Your task to perform on an android device: turn off location Image 0: 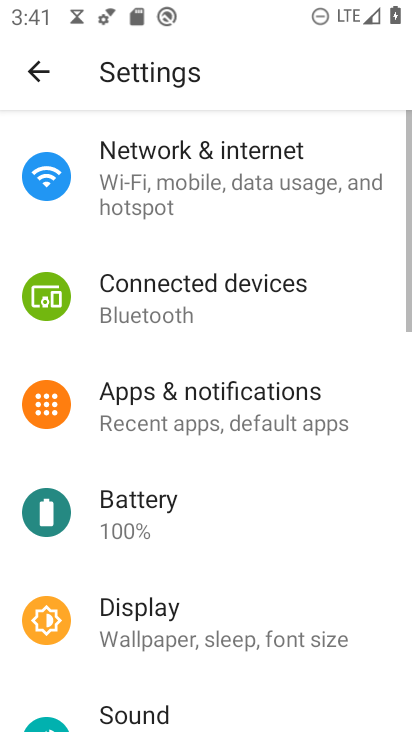
Step 0: press home button
Your task to perform on an android device: turn off location Image 1: 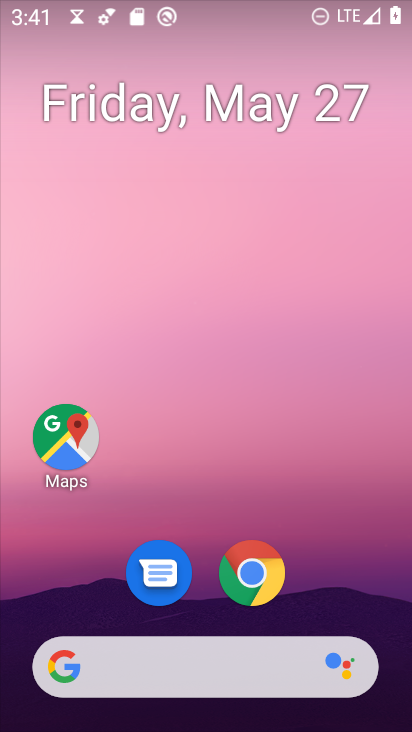
Step 1: drag from (205, 598) to (193, 0)
Your task to perform on an android device: turn off location Image 2: 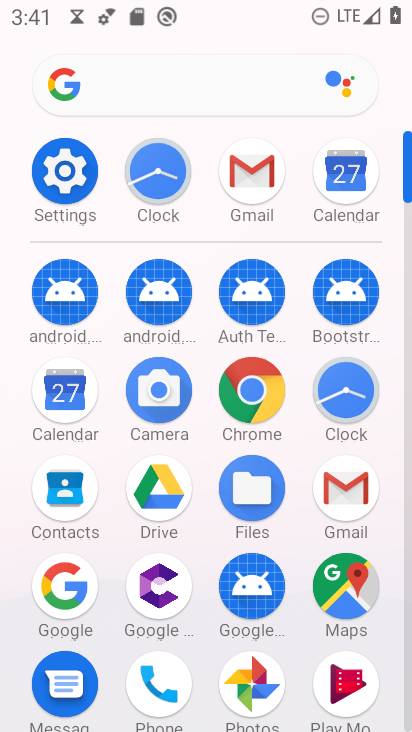
Step 2: click (68, 170)
Your task to perform on an android device: turn off location Image 3: 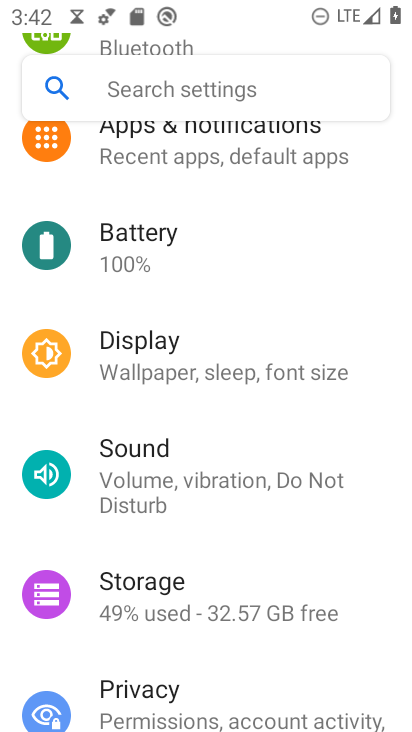
Step 3: drag from (158, 667) to (223, 273)
Your task to perform on an android device: turn off location Image 4: 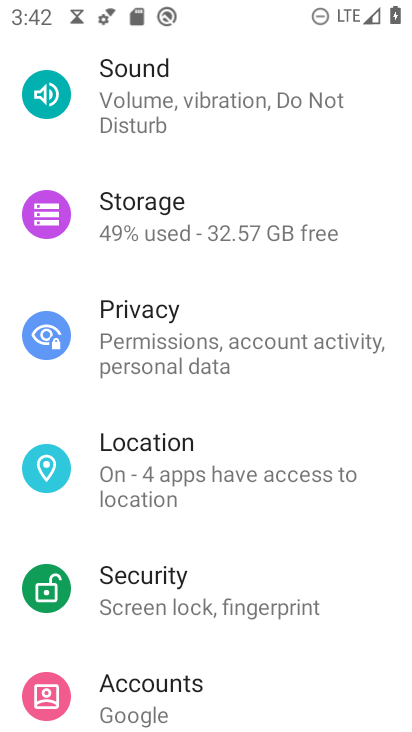
Step 4: click (198, 473)
Your task to perform on an android device: turn off location Image 5: 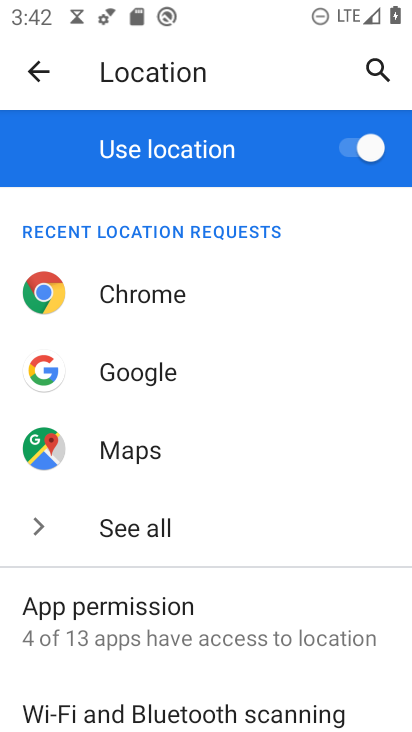
Step 5: click (352, 145)
Your task to perform on an android device: turn off location Image 6: 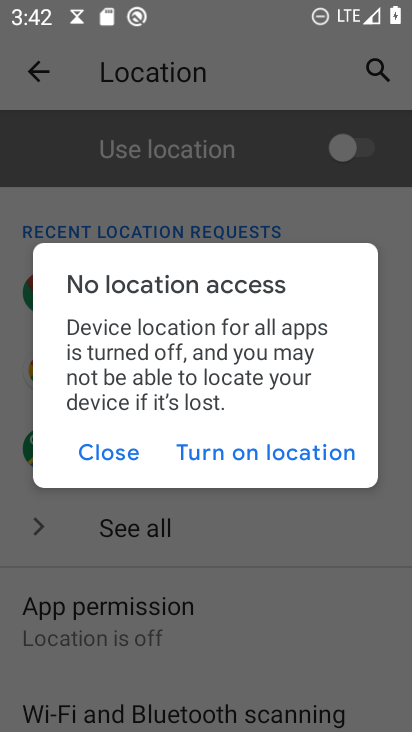
Step 6: task complete